Your task to perform on an android device: Open Youtube and go to the subscriptions tab Image 0: 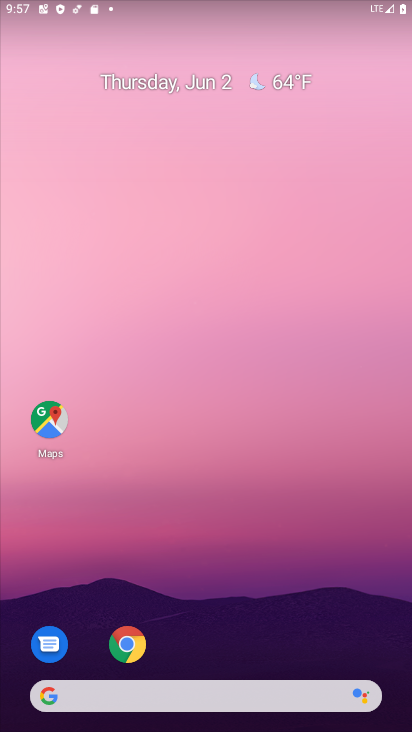
Step 0: press home button
Your task to perform on an android device: Open Youtube and go to the subscriptions tab Image 1: 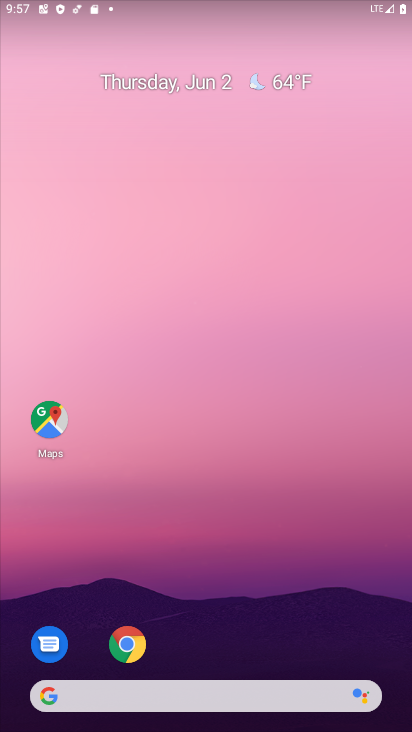
Step 1: drag from (294, 545) to (255, 11)
Your task to perform on an android device: Open Youtube and go to the subscriptions tab Image 2: 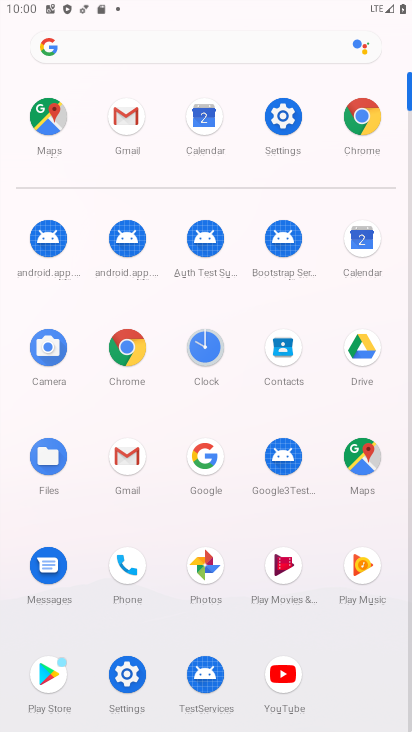
Step 2: click (290, 666)
Your task to perform on an android device: Open Youtube and go to the subscriptions tab Image 3: 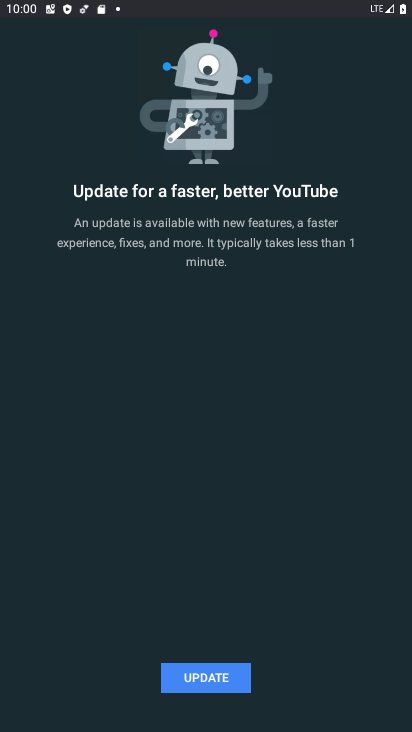
Step 3: click (223, 668)
Your task to perform on an android device: Open Youtube and go to the subscriptions tab Image 4: 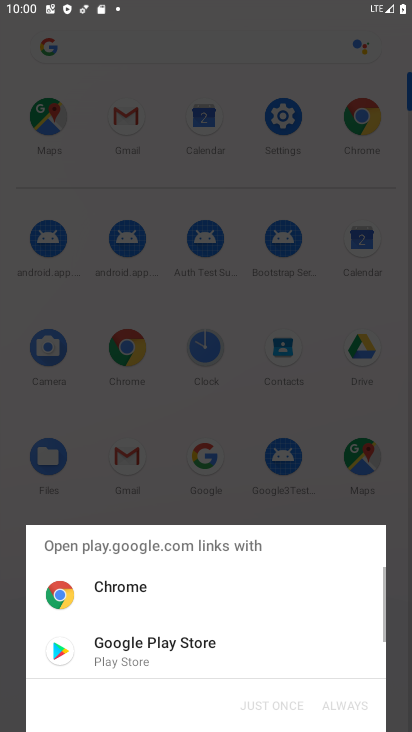
Step 4: click (95, 654)
Your task to perform on an android device: Open Youtube and go to the subscriptions tab Image 5: 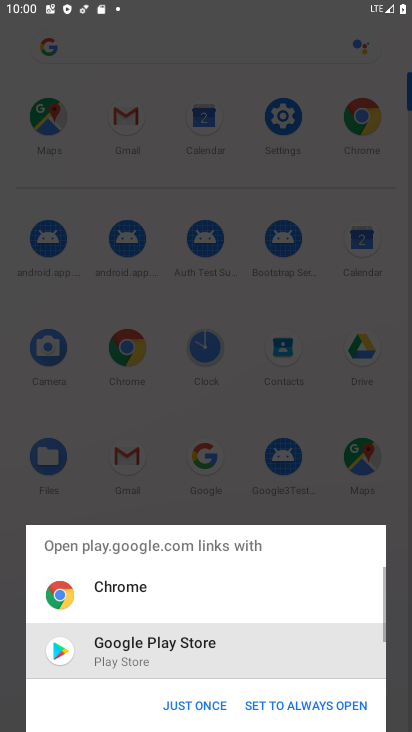
Step 5: click (197, 705)
Your task to perform on an android device: Open Youtube and go to the subscriptions tab Image 6: 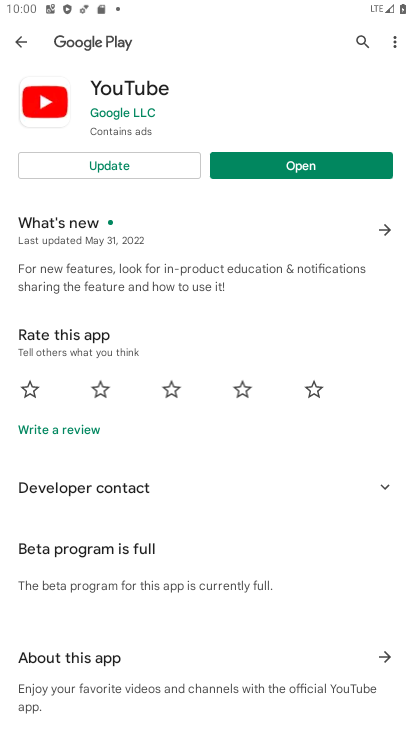
Step 6: click (55, 173)
Your task to perform on an android device: Open Youtube and go to the subscriptions tab Image 7: 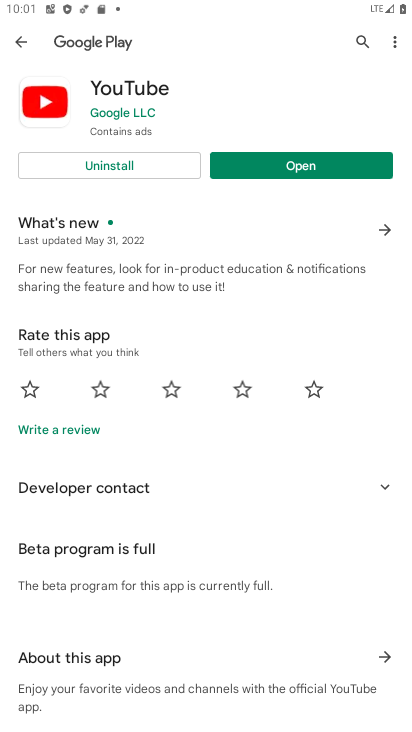
Step 7: click (301, 156)
Your task to perform on an android device: Open Youtube and go to the subscriptions tab Image 8: 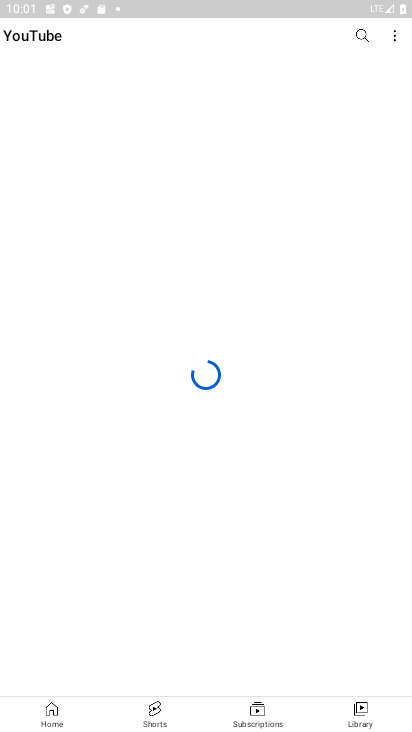
Step 8: click (268, 714)
Your task to perform on an android device: Open Youtube and go to the subscriptions tab Image 9: 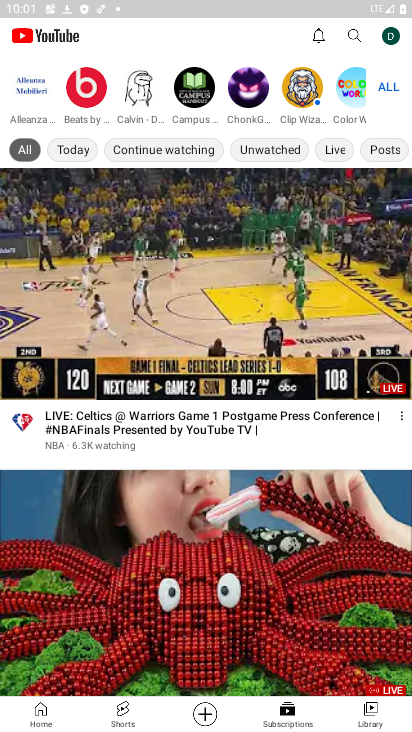
Step 9: task complete